Your task to perform on an android device: delete location history Image 0: 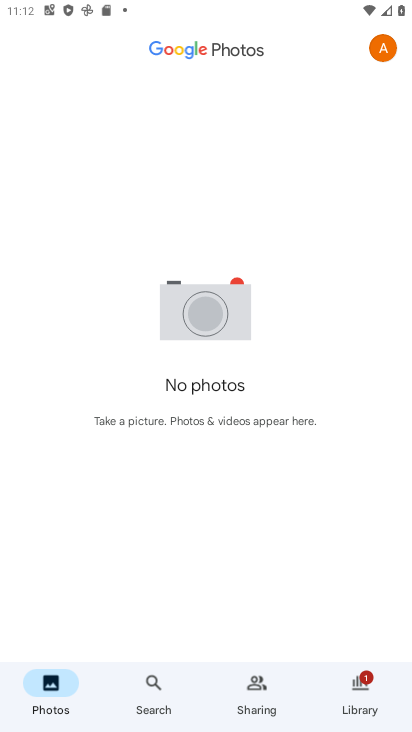
Step 0: press home button
Your task to perform on an android device: delete location history Image 1: 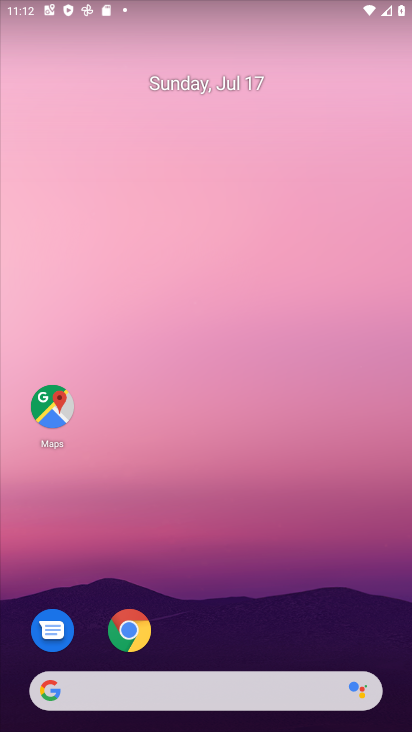
Step 1: drag from (248, 630) to (247, 209)
Your task to perform on an android device: delete location history Image 2: 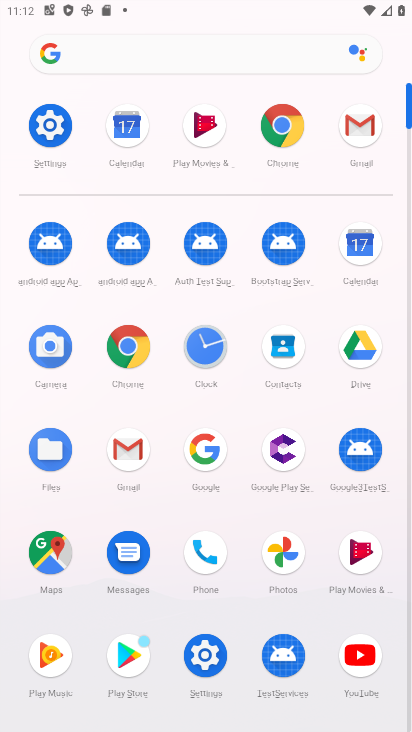
Step 2: click (63, 149)
Your task to perform on an android device: delete location history Image 3: 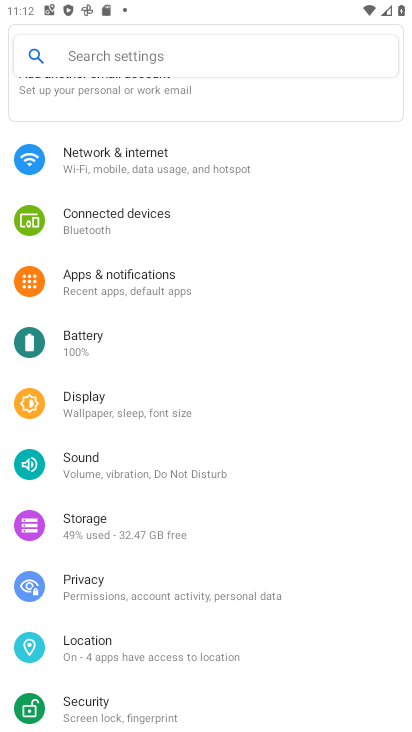
Step 3: click (114, 636)
Your task to perform on an android device: delete location history Image 4: 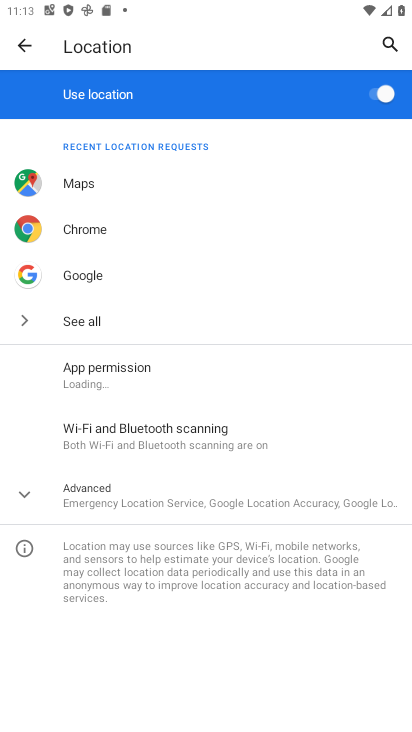
Step 4: click (127, 496)
Your task to perform on an android device: delete location history Image 5: 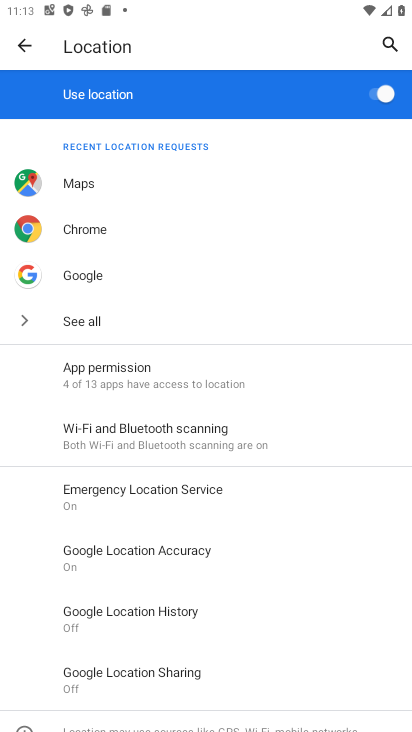
Step 5: click (197, 610)
Your task to perform on an android device: delete location history Image 6: 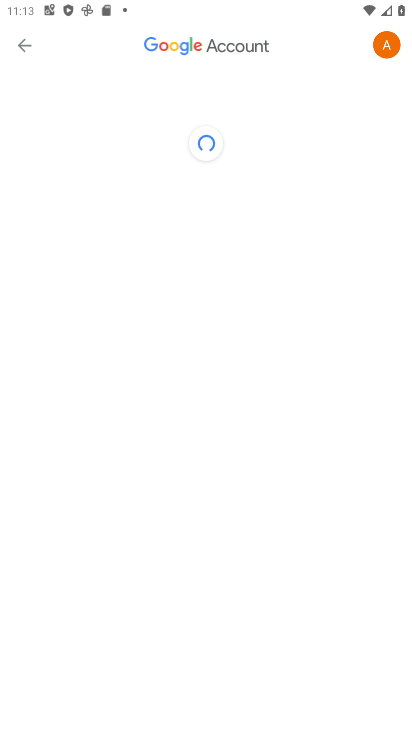
Step 6: task complete